Your task to perform on an android device: refresh tabs in the chrome app Image 0: 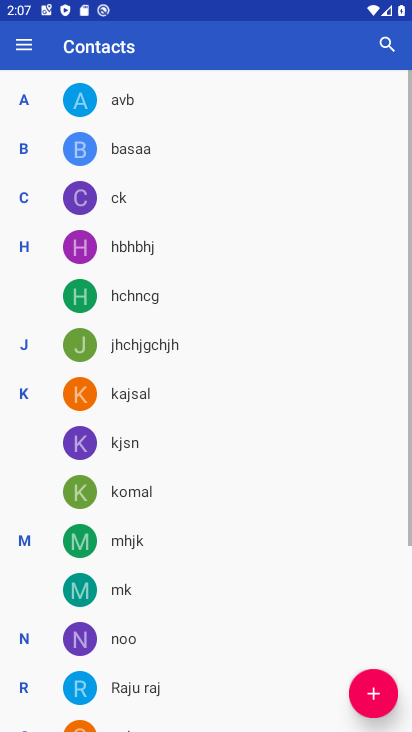
Step 0: press home button
Your task to perform on an android device: refresh tabs in the chrome app Image 1: 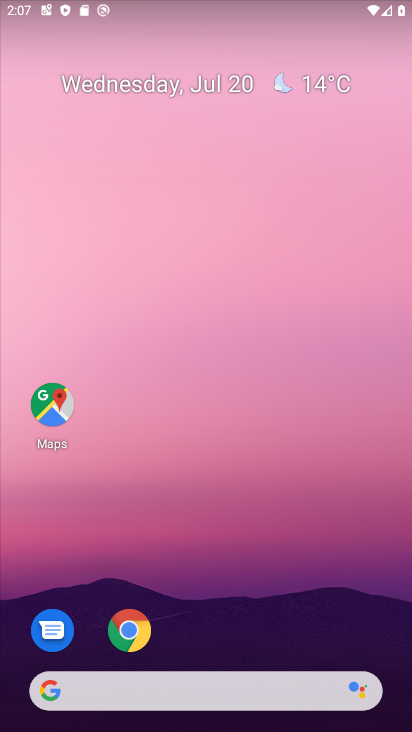
Step 1: click (151, 629)
Your task to perform on an android device: refresh tabs in the chrome app Image 2: 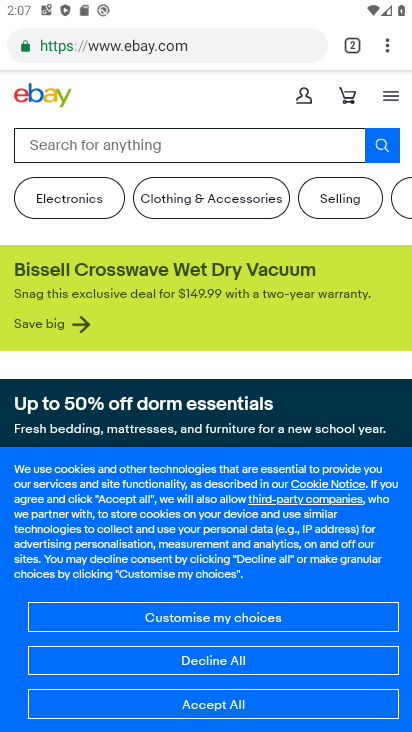
Step 2: click (390, 50)
Your task to perform on an android device: refresh tabs in the chrome app Image 3: 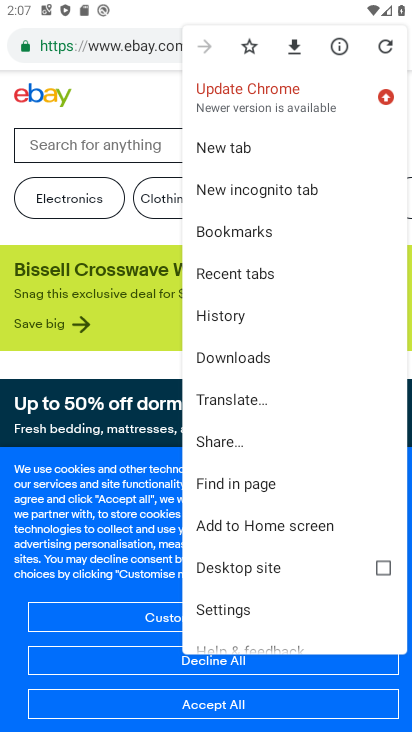
Step 3: click (379, 52)
Your task to perform on an android device: refresh tabs in the chrome app Image 4: 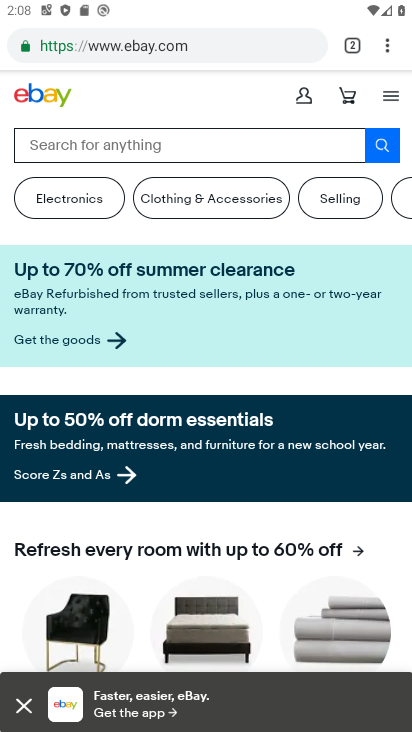
Step 4: task complete